Your task to perform on an android device: Go to Android settings Image 0: 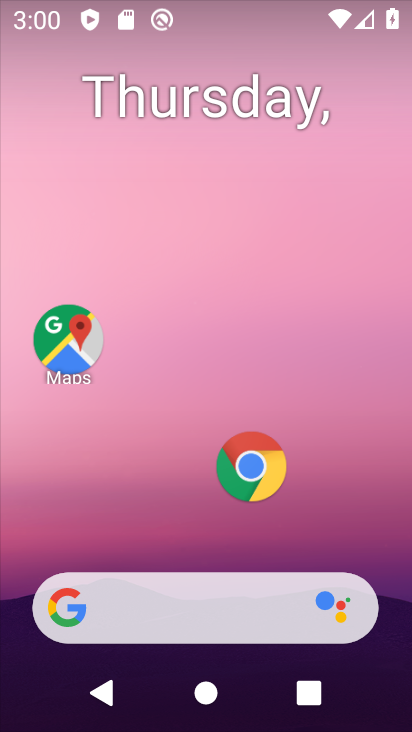
Step 0: drag from (224, 460) to (234, 130)
Your task to perform on an android device: Go to Android settings Image 1: 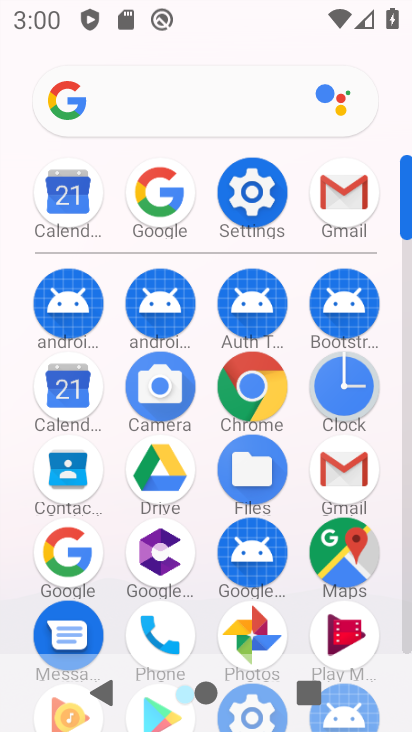
Step 1: click (261, 190)
Your task to perform on an android device: Go to Android settings Image 2: 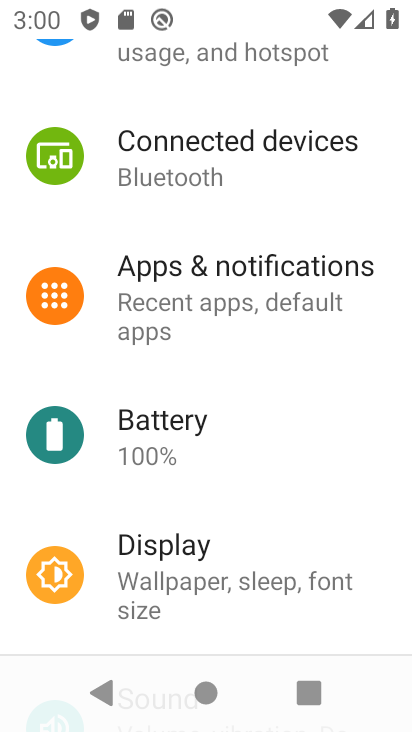
Step 2: task complete